Your task to perform on an android device: Find coffee shops on Maps Image 0: 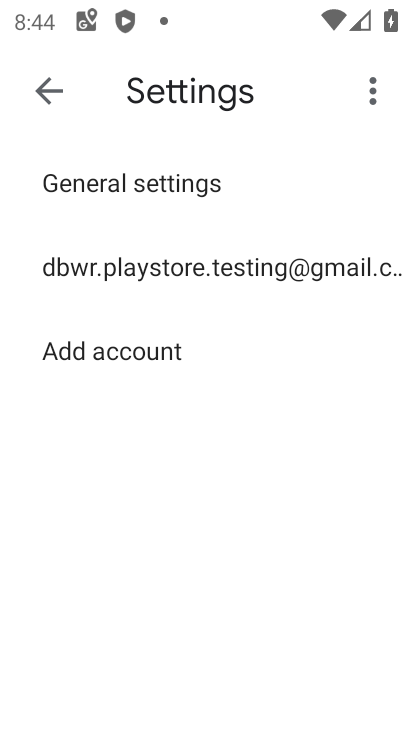
Step 0: press home button
Your task to perform on an android device: Find coffee shops on Maps Image 1: 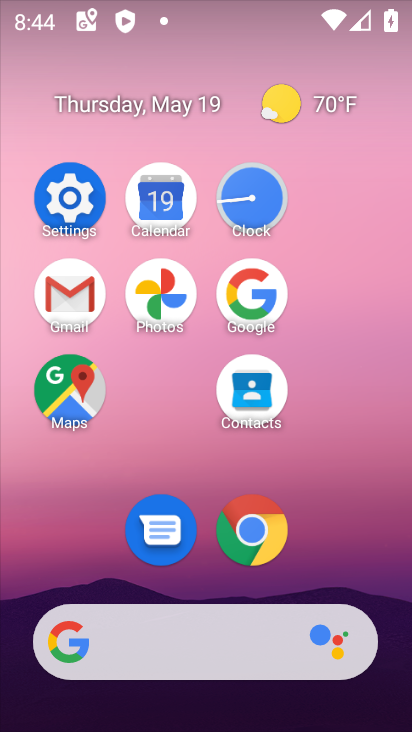
Step 1: click (81, 391)
Your task to perform on an android device: Find coffee shops on Maps Image 2: 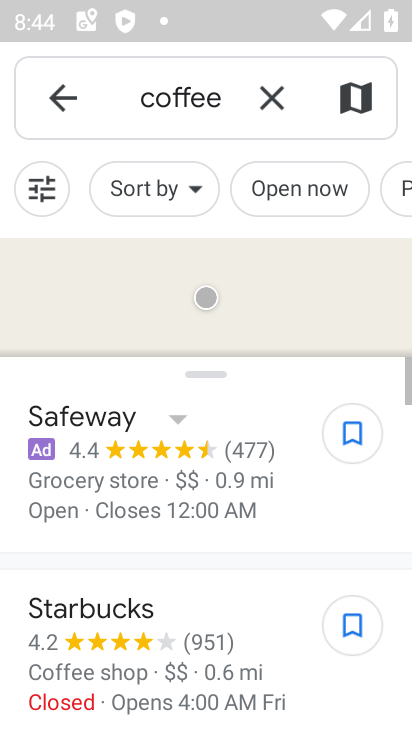
Step 2: click (266, 107)
Your task to perform on an android device: Find coffee shops on Maps Image 3: 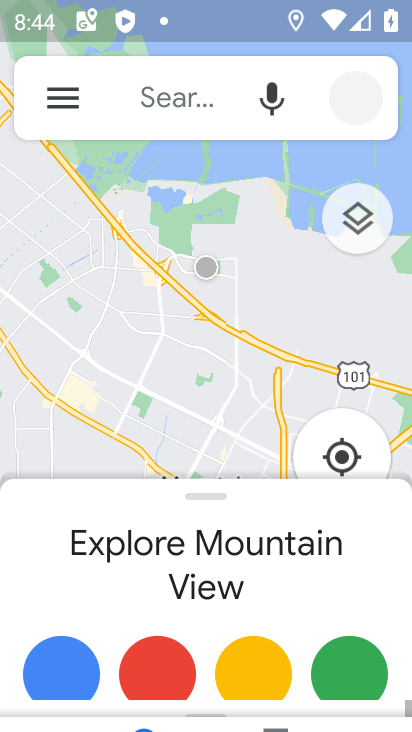
Step 3: click (177, 99)
Your task to perform on an android device: Find coffee shops on Maps Image 4: 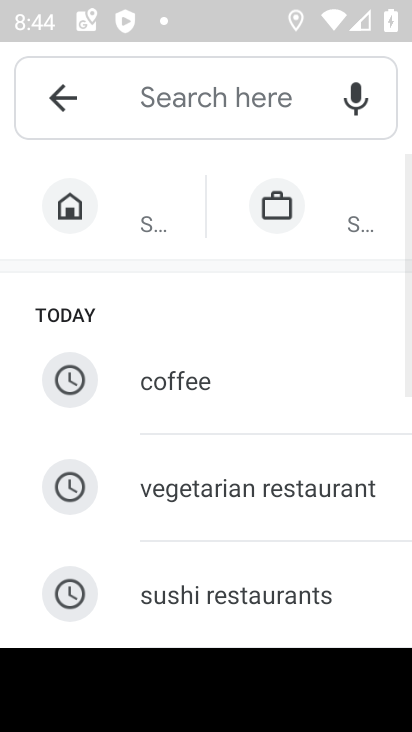
Step 4: drag from (395, 570) to (352, 263)
Your task to perform on an android device: Find coffee shops on Maps Image 5: 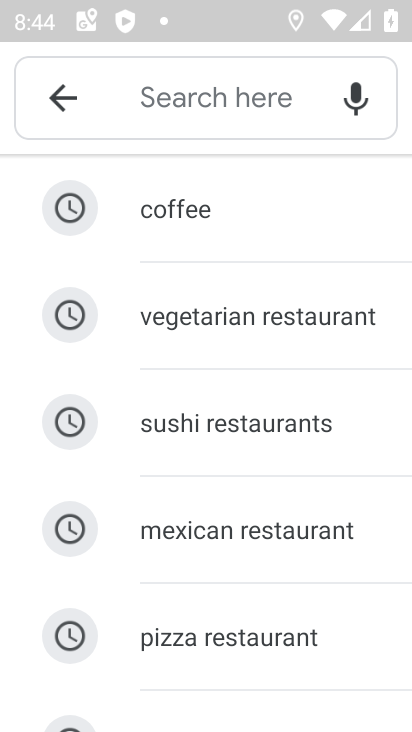
Step 5: drag from (301, 603) to (275, 192)
Your task to perform on an android device: Find coffee shops on Maps Image 6: 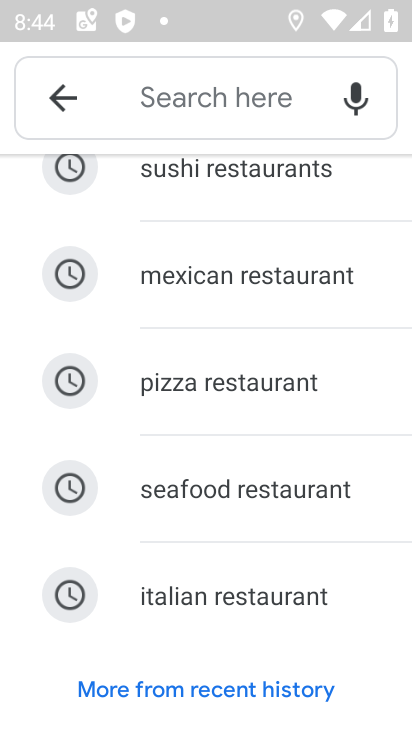
Step 6: click (189, 82)
Your task to perform on an android device: Find coffee shops on Maps Image 7: 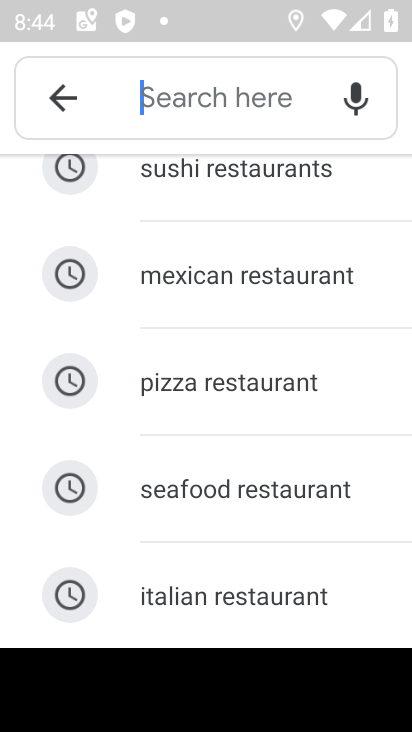
Step 7: type "coffee shops"
Your task to perform on an android device: Find coffee shops on Maps Image 8: 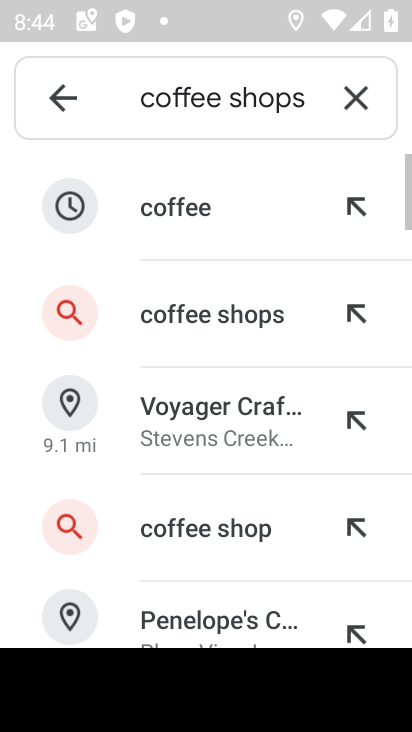
Step 8: click (235, 311)
Your task to perform on an android device: Find coffee shops on Maps Image 9: 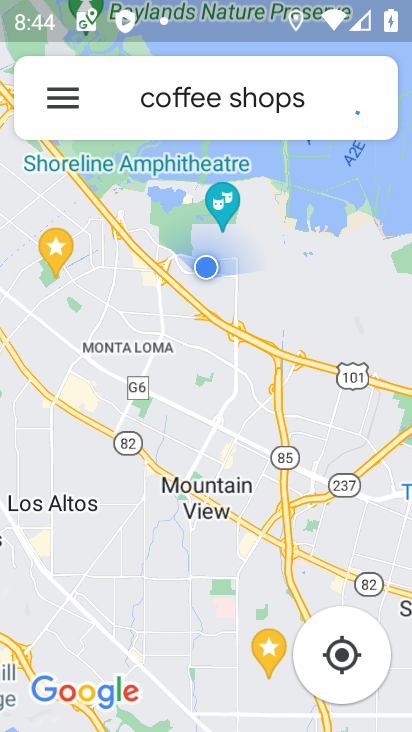
Step 9: task complete